Your task to perform on an android device: What's the weather going to be this weekend? Image 0: 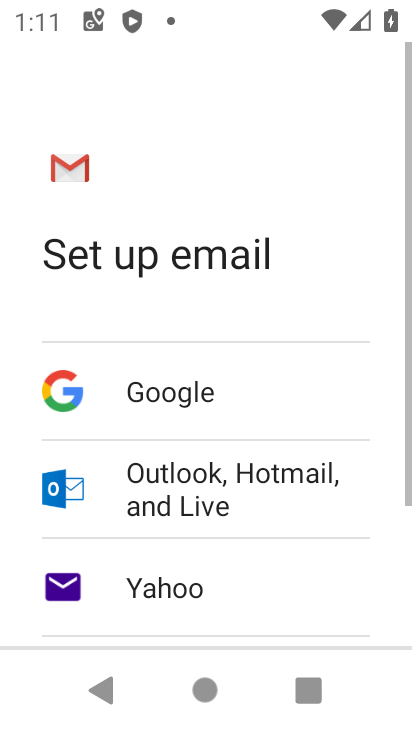
Step 0: press home button
Your task to perform on an android device: What's the weather going to be this weekend? Image 1: 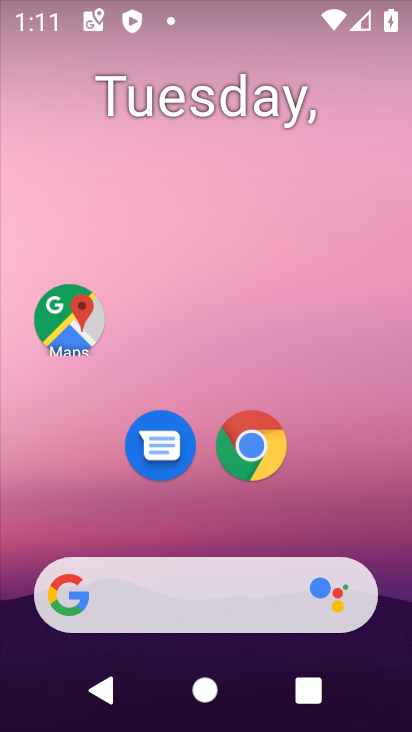
Step 1: drag from (373, 472) to (376, 80)
Your task to perform on an android device: What's the weather going to be this weekend? Image 2: 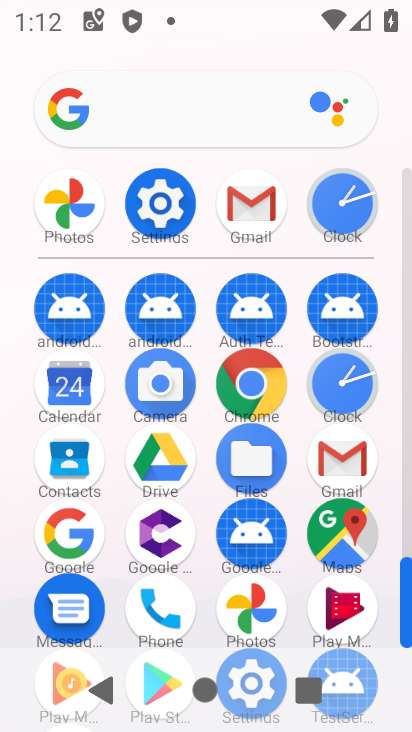
Step 2: press home button
Your task to perform on an android device: What's the weather going to be this weekend? Image 3: 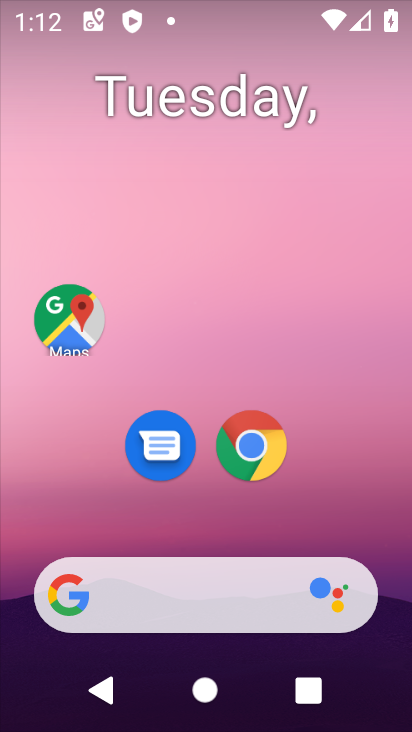
Step 3: click (80, 602)
Your task to perform on an android device: What's the weather going to be this weekend? Image 4: 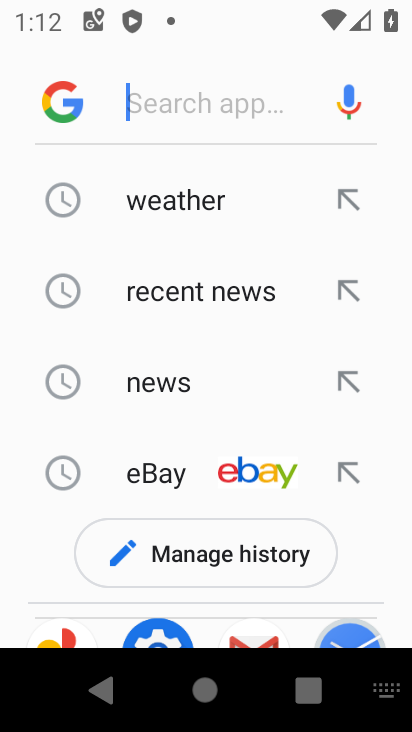
Step 4: click (77, 112)
Your task to perform on an android device: What's the weather going to be this weekend? Image 5: 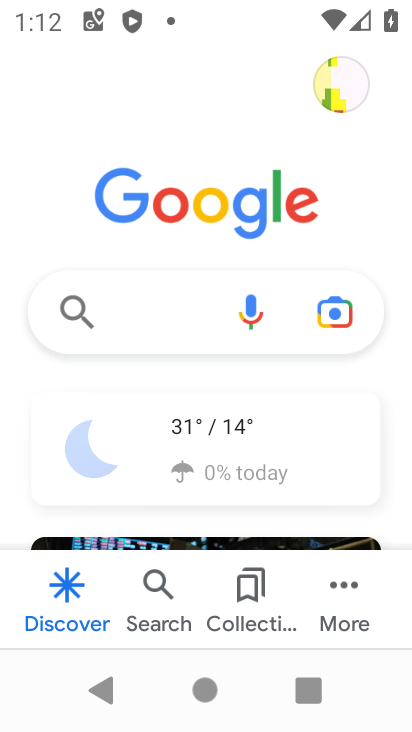
Step 5: click (258, 498)
Your task to perform on an android device: What's the weather going to be this weekend? Image 6: 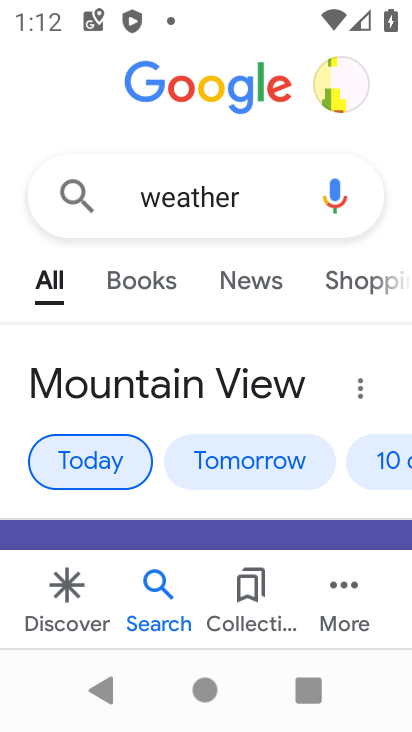
Step 6: task complete